Your task to perform on an android device: When is my next appointment? Image 0: 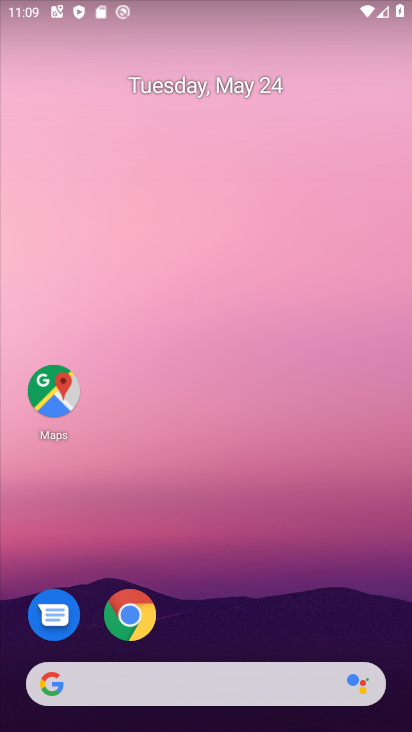
Step 0: drag from (306, 567) to (295, 205)
Your task to perform on an android device: When is my next appointment? Image 1: 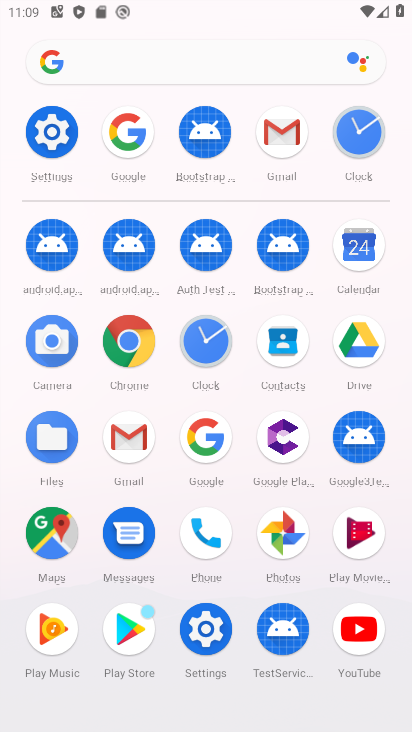
Step 1: click (363, 136)
Your task to perform on an android device: When is my next appointment? Image 2: 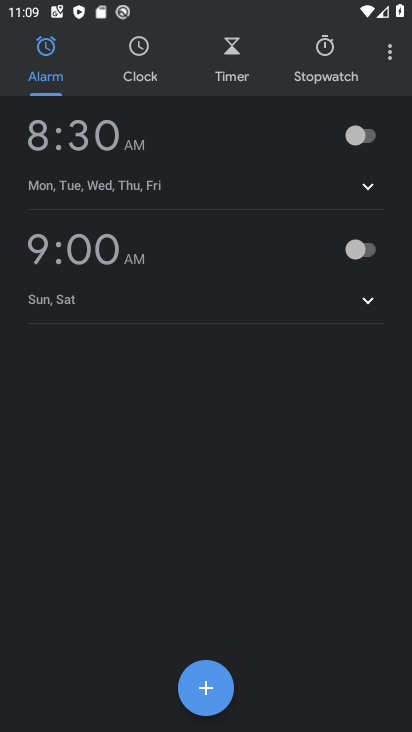
Step 2: task complete